Your task to perform on an android device: When is my next appointment? Image 0: 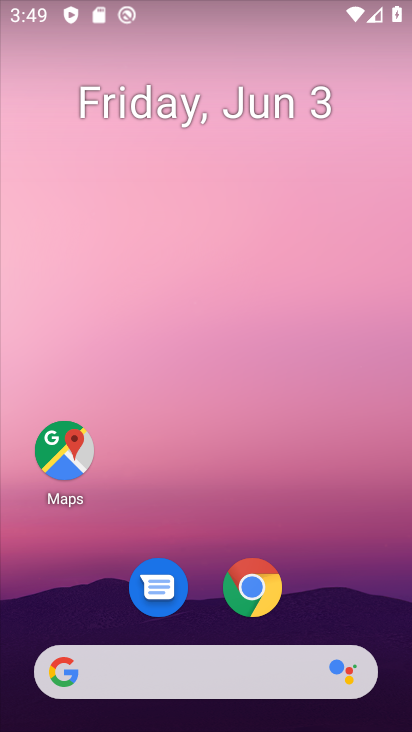
Step 0: drag from (316, 531) to (323, 289)
Your task to perform on an android device: When is my next appointment? Image 1: 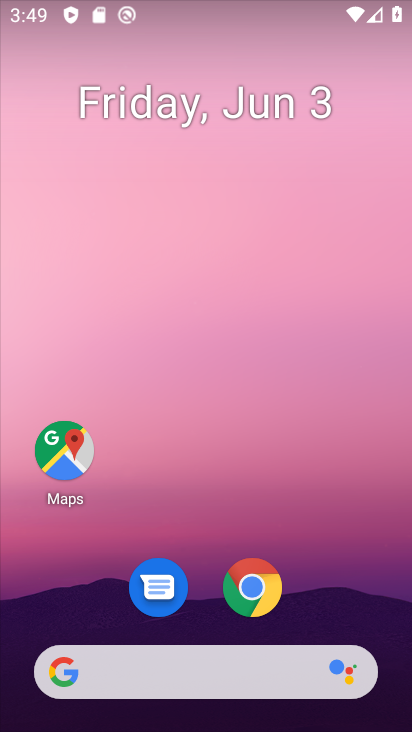
Step 1: drag from (278, 499) to (277, 107)
Your task to perform on an android device: When is my next appointment? Image 2: 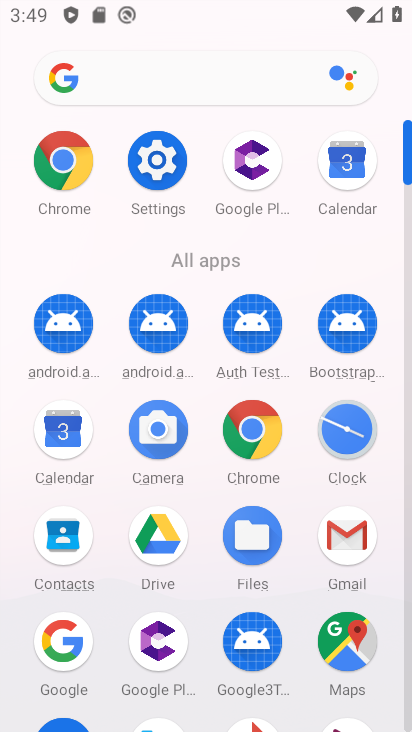
Step 2: click (73, 415)
Your task to perform on an android device: When is my next appointment? Image 3: 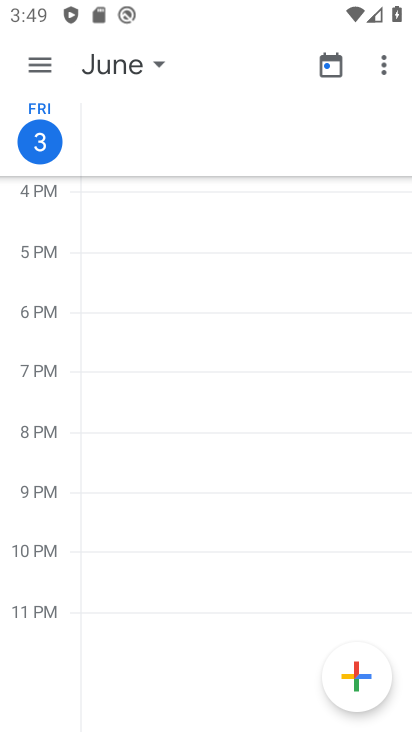
Step 3: click (46, 63)
Your task to perform on an android device: When is my next appointment? Image 4: 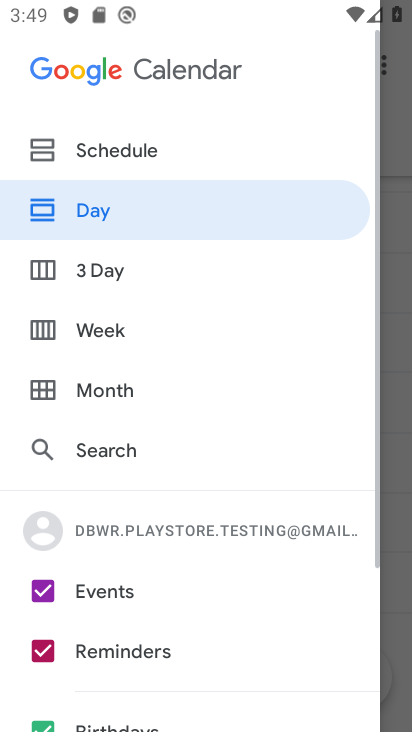
Step 4: click (87, 140)
Your task to perform on an android device: When is my next appointment? Image 5: 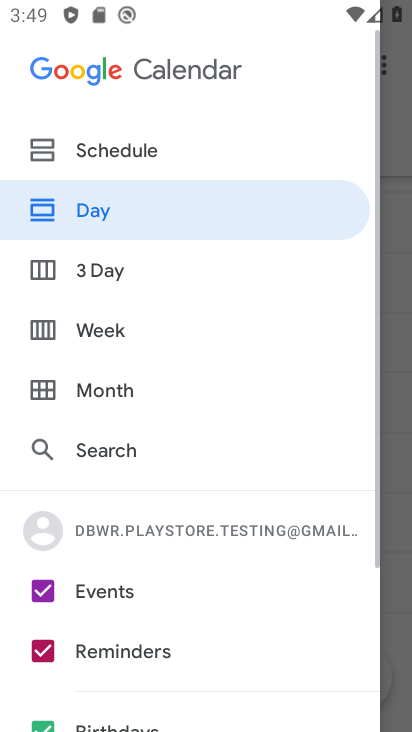
Step 5: click (139, 147)
Your task to perform on an android device: When is my next appointment? Image 6: 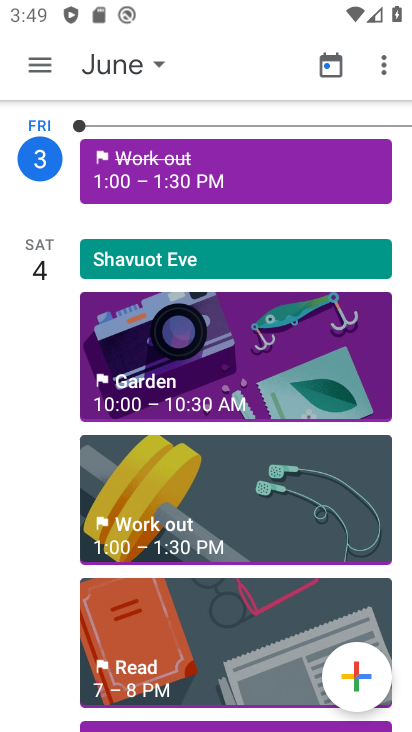
Step 6: drag from (233, 470) to (302, 157)
Your task to perform on an android device: When is my next appointment? Image 7: 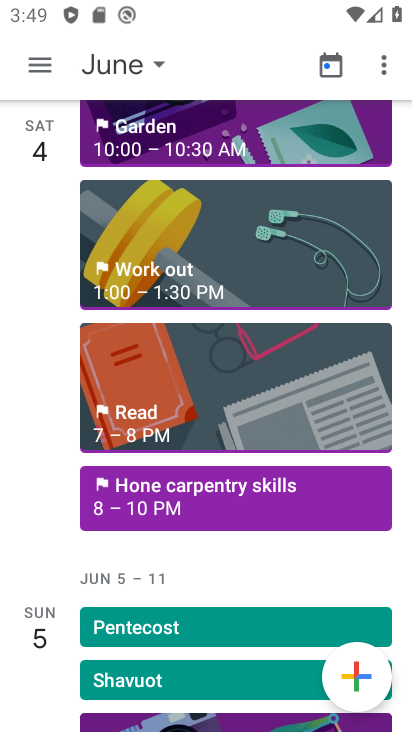
Step 7: drag from (268, 570) to (324, 219)
Your task to perform on an android device: When is my next appointment? Image 8: 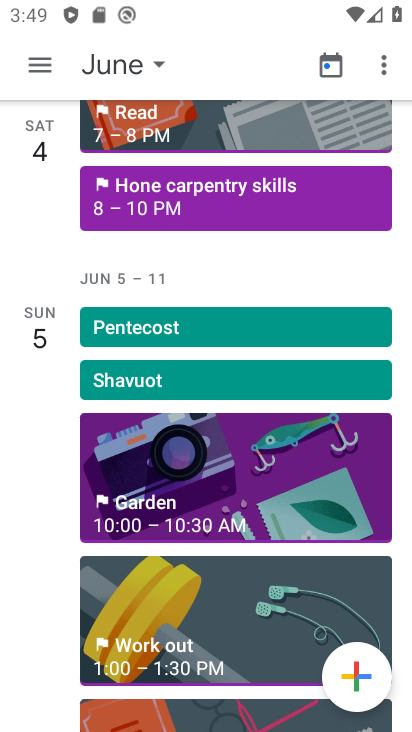
Step 8: drag from (243, 543) to (286, 125)
Your task to perform on an android device: When is my next appointment? Image 9: 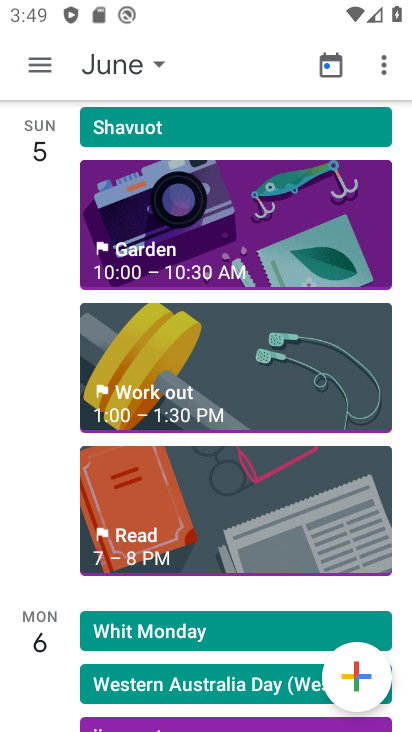
Step 9: drag from (230, 606) to (273, 250)
Your task to perform on an android device: When is my next appointment? Image 10: 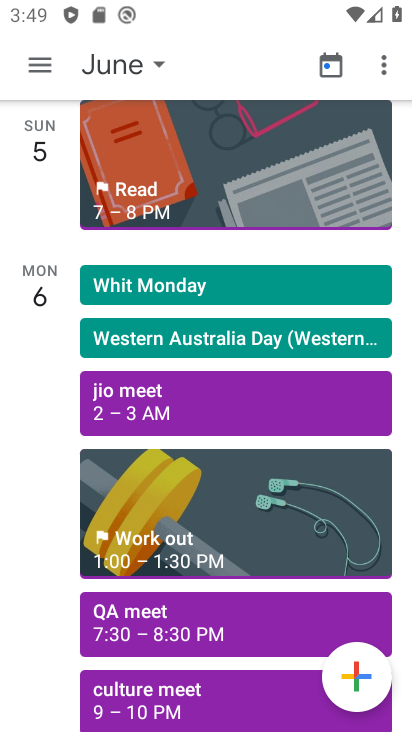
Step 10: click (230, 390)
Your task to perform on an android device: When is my next appointment? Image 11: 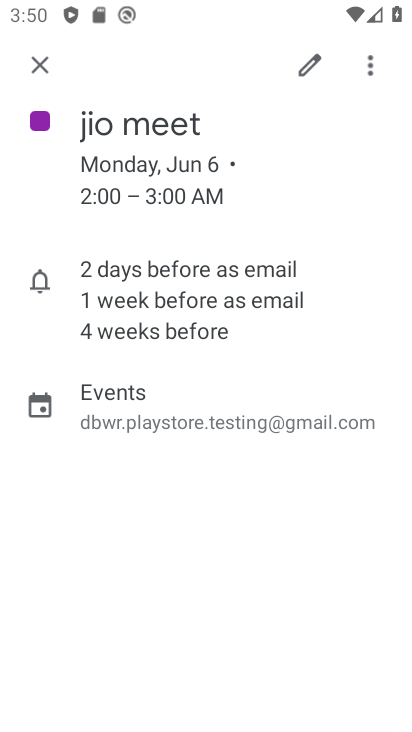
Step 11: task complete